Your task to perform on an android device: Go to Amazon Image 0: 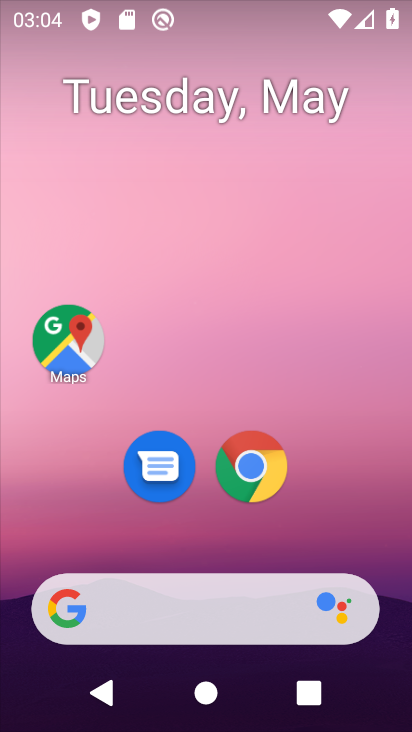
Step 0: drag from (278, 541) to (330, 283)
Your task to perform on an android device: Go to Amazon Image 1: 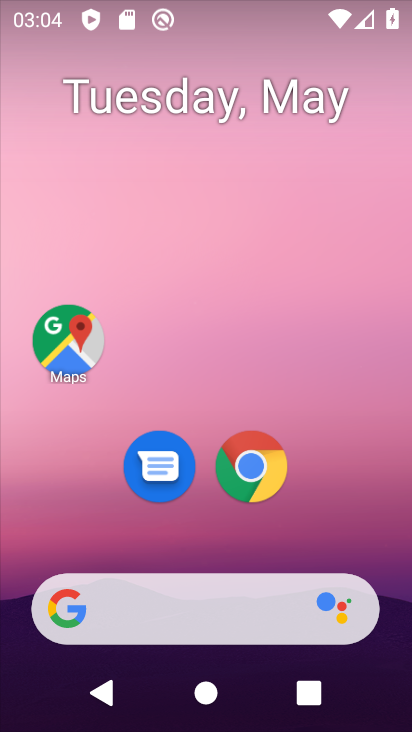
Step 1: drag from (290, 525) to (334, 309)
Your task to perform on an android device: Go to Amazon Image 2: 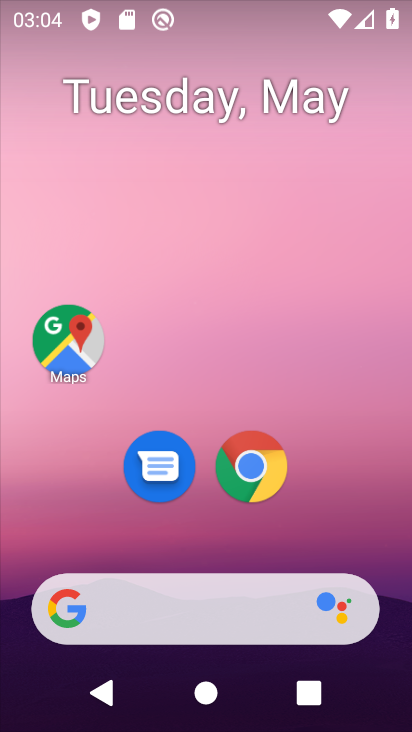
Step 2: drag from (296, 518) to (301, 474)
Your task to perform on an android device: Go to Amazon Image 3: 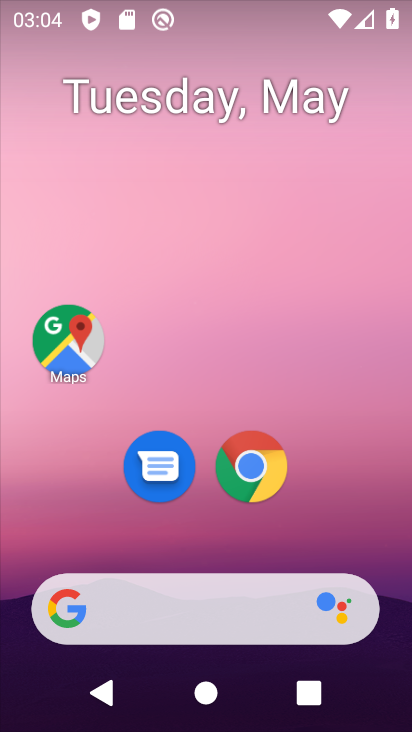
Step 3: drag from (283, 514) to (328, 293)
Your task to perform on an android device: Go to Amazon Image 4: 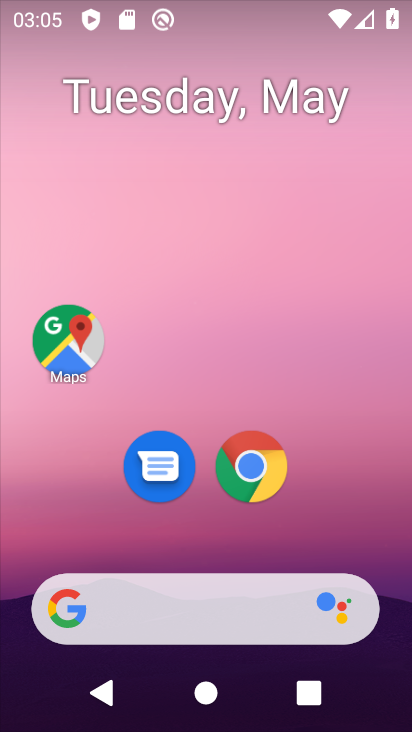
Step 4: click (248, 446)
Your task to perform on an android device: Go to Amazon Image 5: 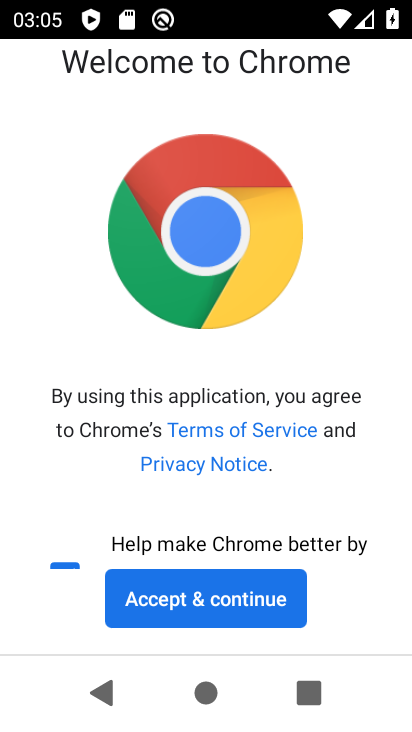
Step 5: click (170, 621)
Your task to perform on an android device: Go to Amazon Image 6: 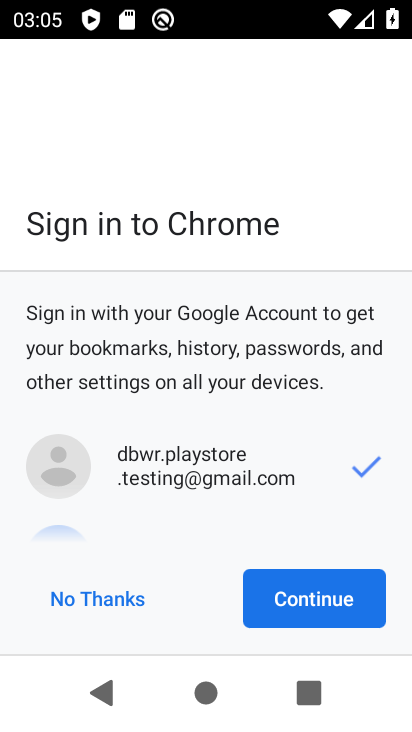
Step 6: click (330, 584)
Your task to perform on an android device: Go to Amazon Image 7: 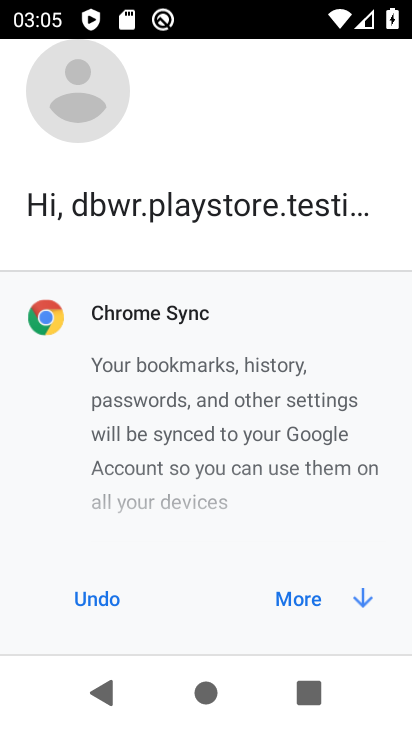
Step 7: click (317, 587)
Your task to perform on an android device: Go to Amazon Image 8: 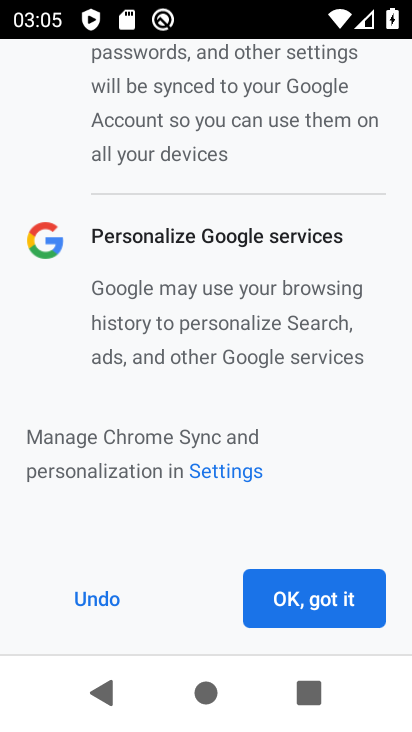
Step 8: click (306, 597)
Your task to perform on an android device: Go to Amazon Image 9: 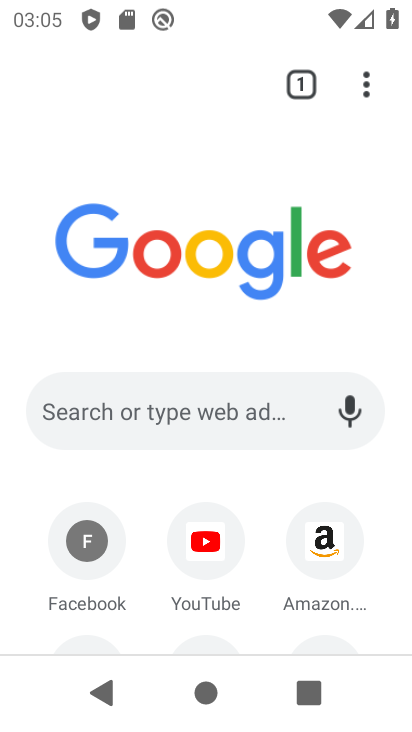
Step 9: click (311, 536)
Your task to perform on an android device: Go to Amazon Image 10: 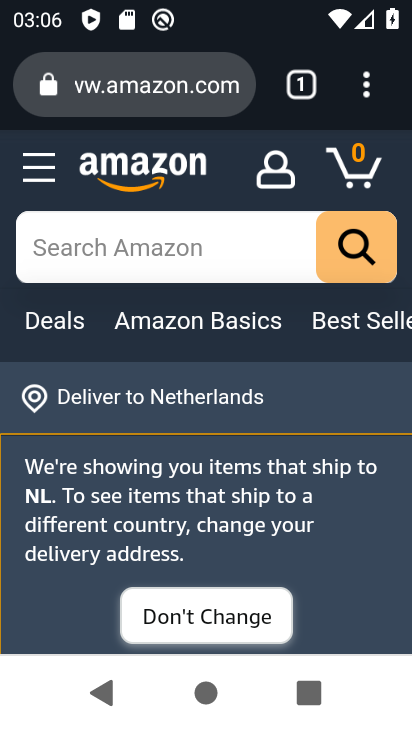
Step 10: task complete